Your task to perform on an android device: Turn off the flashlight Image 0: 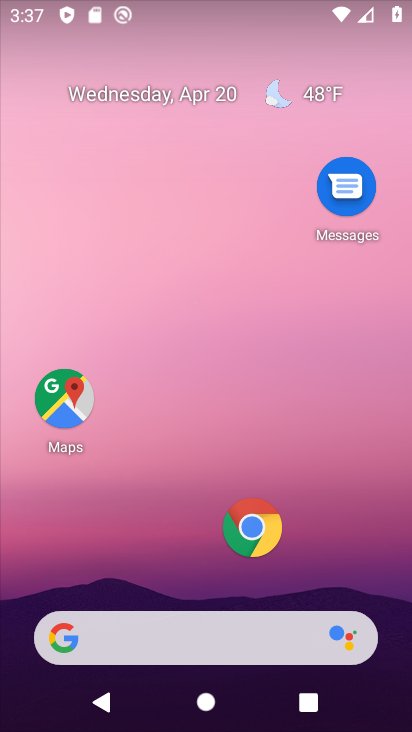
Step 0: drag from (226, 5) to (194, 469)
Your task to perform on an android device: Turn off the flashlight Image 1: 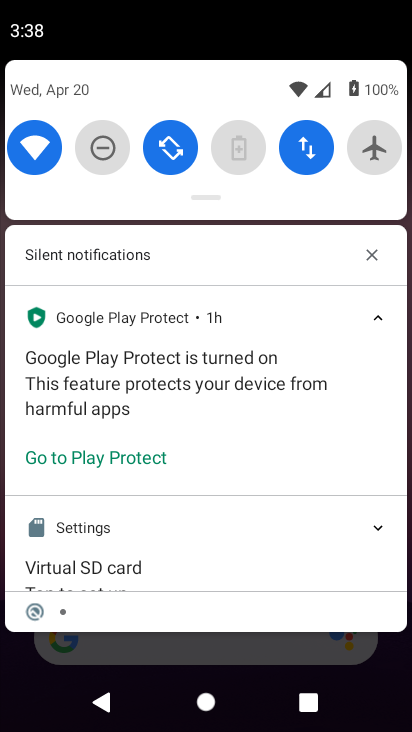
Step 1: task complete